Your task to perform on an android device: find snoozed emails in the gmail app Image 0: 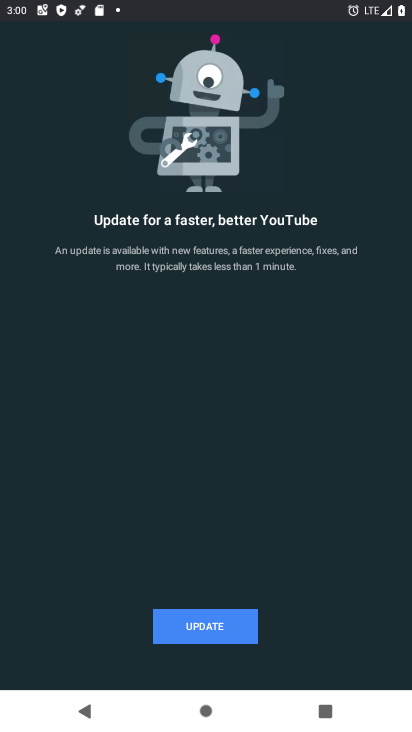
Step 0: press home button
Your task to perform on an android device: find snoozed emails in the gmail app Image 1: 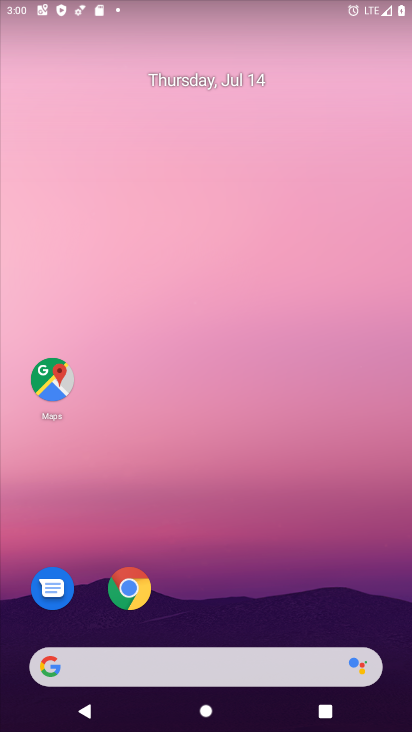
Step 1: drag from (229, 583) to (249, 178)
Your task to perform on an android device: find snoozed emails in the gmail app Image 2: 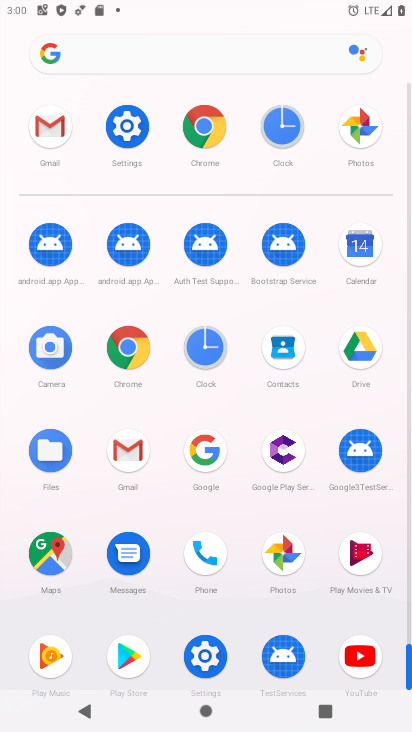
Step 2: click (54, 118)
Your task to perform on an android device: find snoozed emails in the gmail app Image 3: 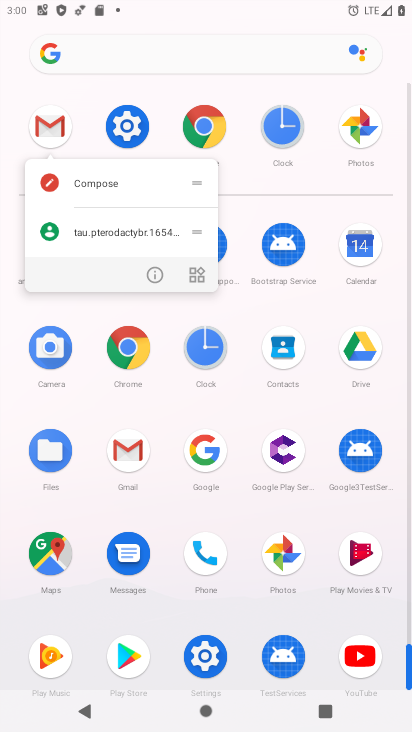
Step 3: click (52, 118)
Your task to perform on an android device: find snoozed emails in the gmail app Image 4: 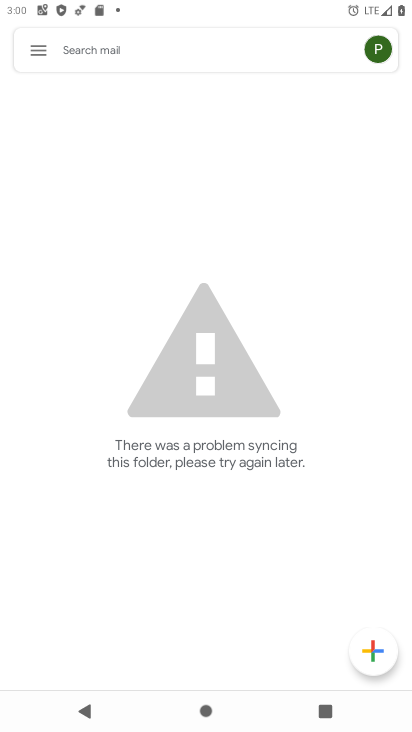
Step 4: click (33, 45)
Your task to perform on an android device: find snoozed emails in the gmail app Image 5: 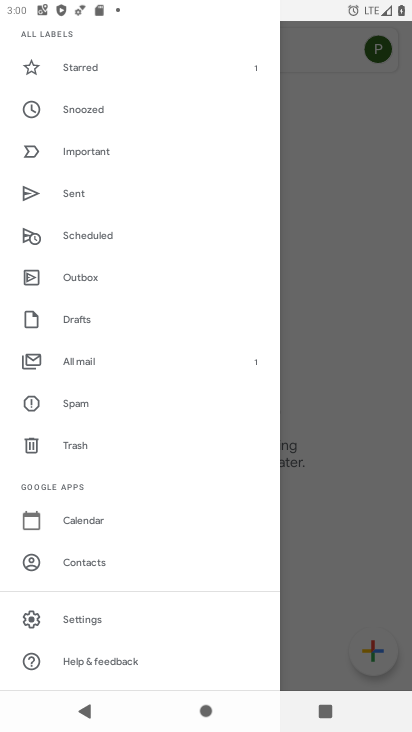
Step 5: click (73, 102)
Your task to perform on an android device: find snoozed emails in the gmail app Image 6: 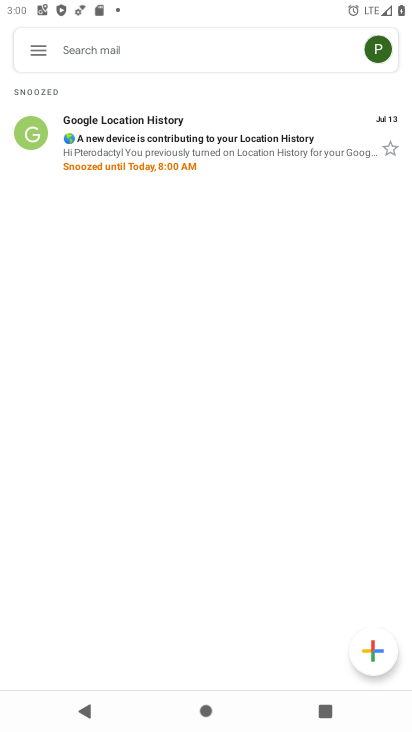
Step 6: task complete